Your task to perform on an android device: Go to Google maps Image 0: 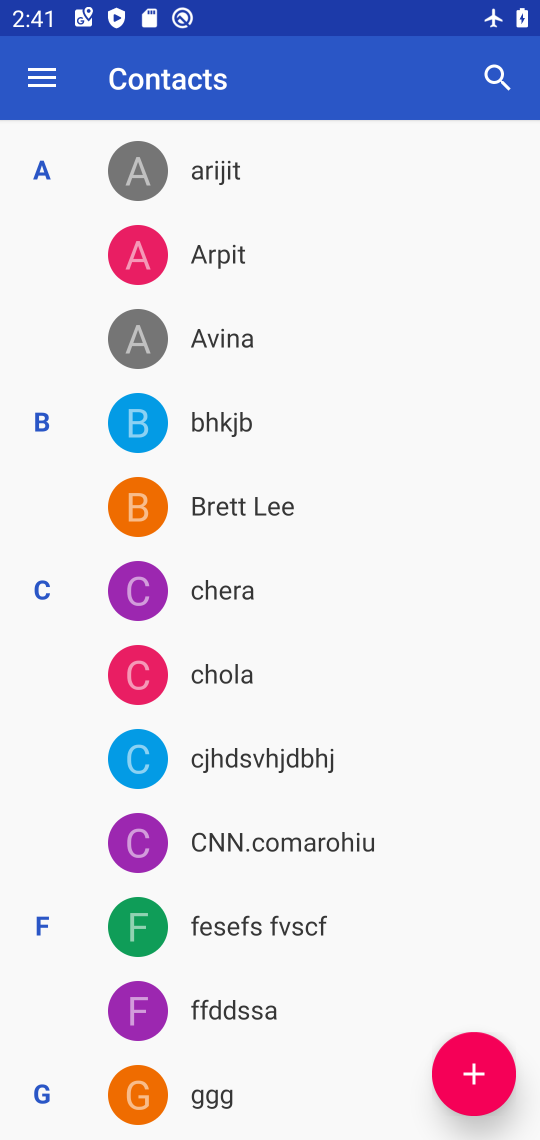
Step 0: press back button
Your task to perform on an android device: Go to Google maps Image 1: 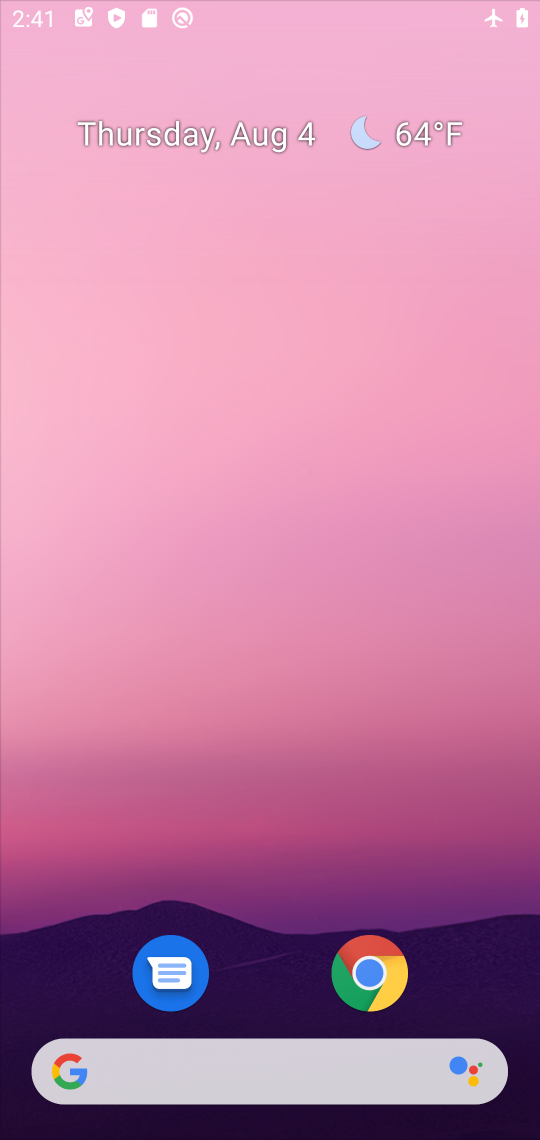
Step 1: press home button
Your task to perform on an android device: Go to Google maps Image 2: 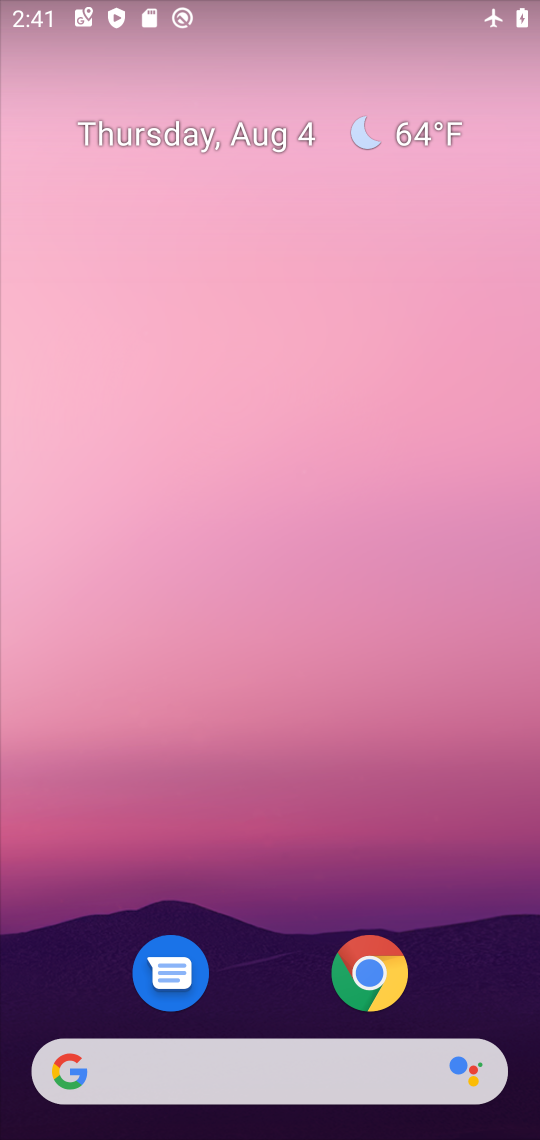
Step 2: drag from (317, 990) to (211, 43)
Your task to perform on an android device: Go to Google maps Image 3: 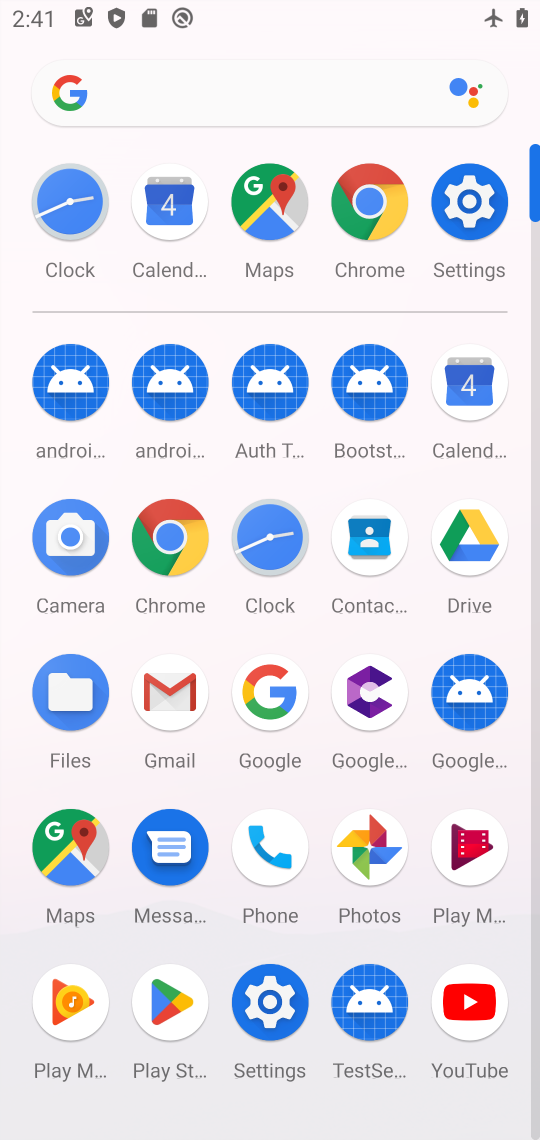
Step 3: click (64, 851)
Your task to perform on an android device: Go to Google maps Image 4: 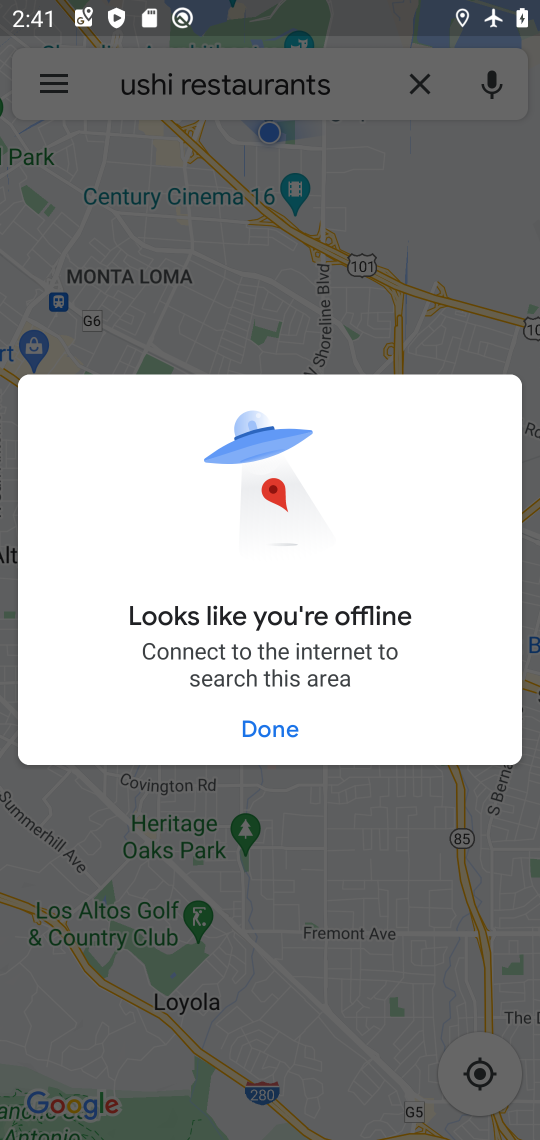
Step 4: click (245, 718)
Your task to perform on an android device: Go to Google maps Image 5: 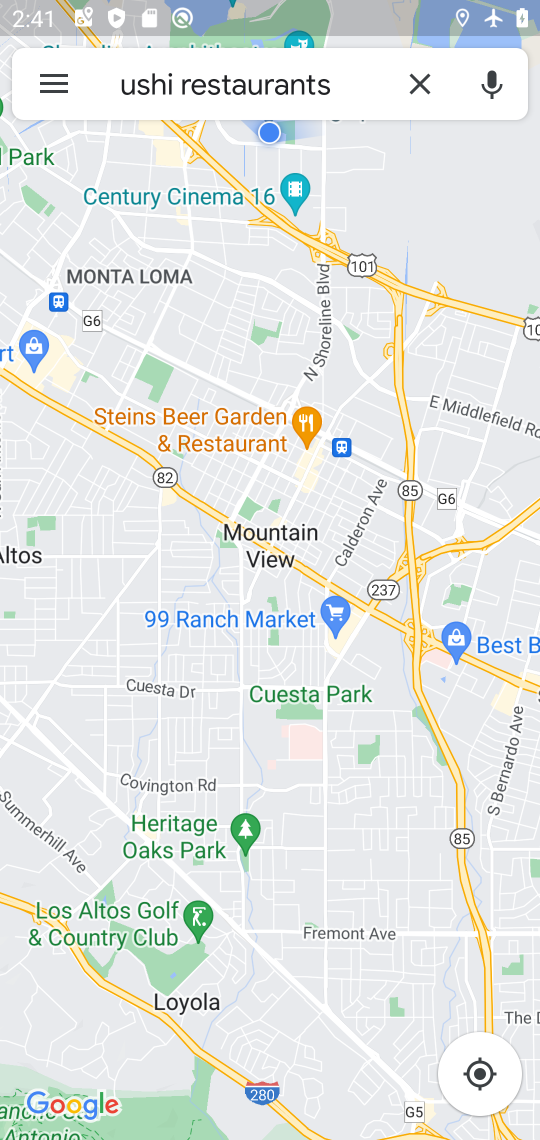
Step 5: task complete